Your task to perform on an android device: toggle wifi Image 0: 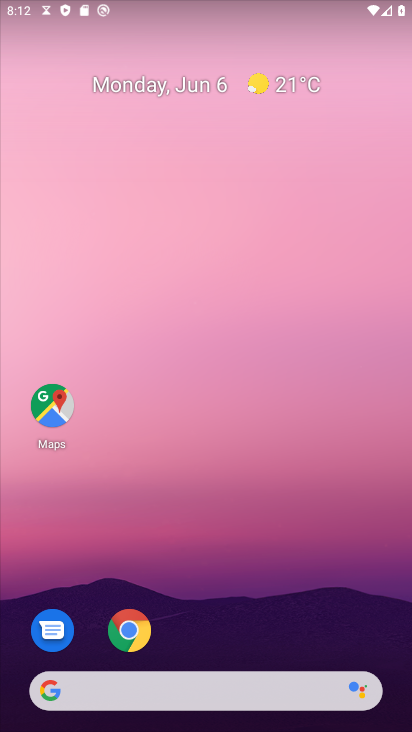
Step 0: drag from (308, 630) to (270, 83)
Your task to perform on an android device: toggle wifi Image 1: 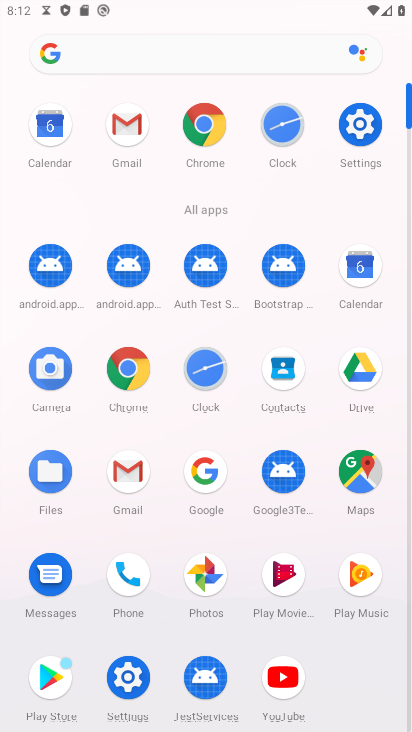
Step 1: click (362, 124)
Your task to perform on an android device: toggle wifi Image 2: 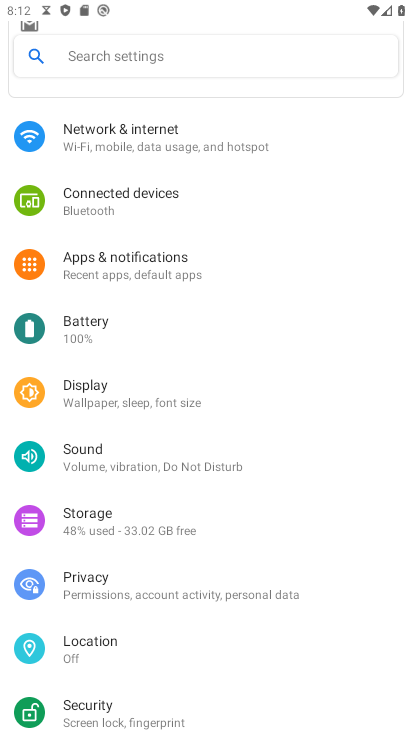
Step 2: click (146, 149)
Your task to perform on an android device: toggle wifi Image 3: 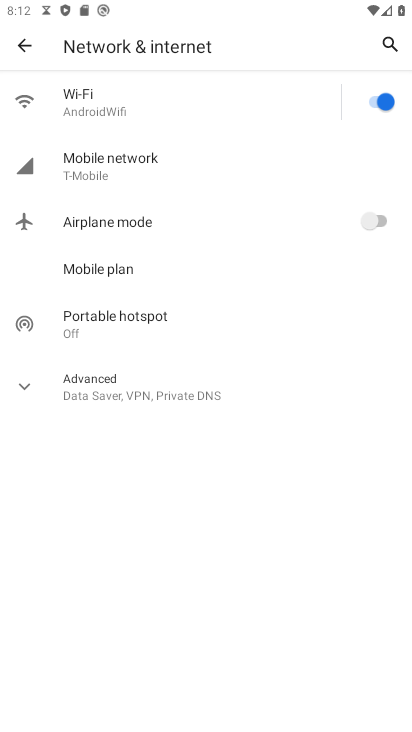
Step 3: click (376, 99)
Your task to perform on an android device: toggle wifi Image 4: 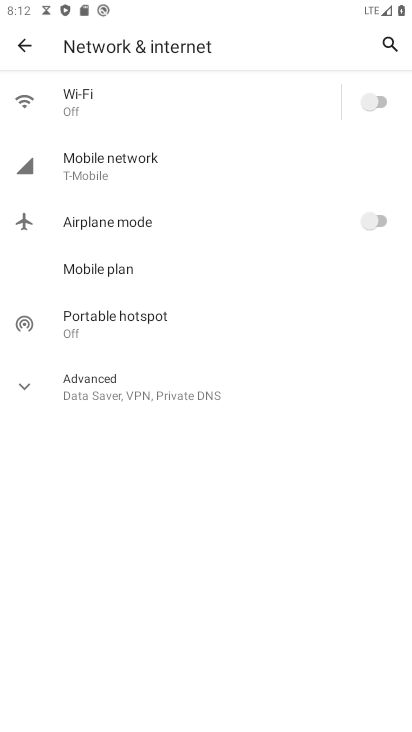
Step 4: task complete